Your task to perform on an android device: Go to accessibility settings Image 0: 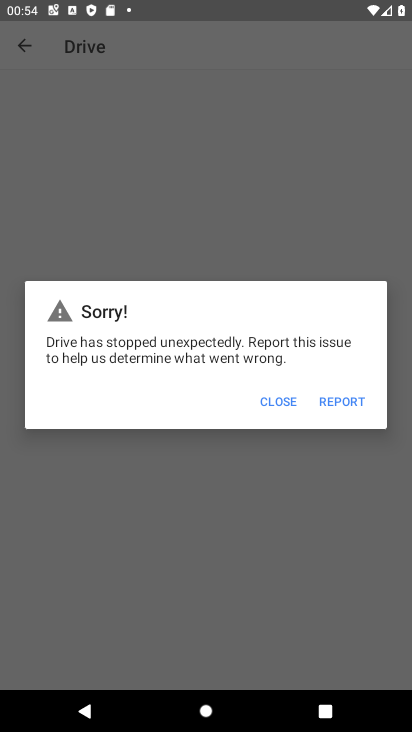
Step 0: press home button
Your task to perform on an android device: Go to accessibility settings Image 1: 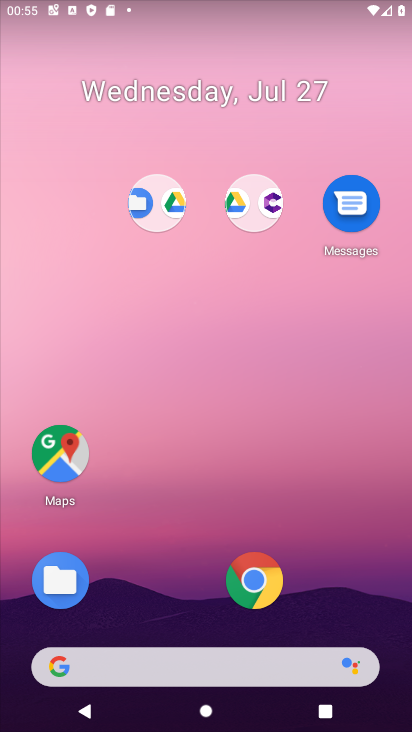
Step 1: drag from (148, 596) to (231, 172)
Your task to perform on an android device: Go to accessibility settings Image 2: 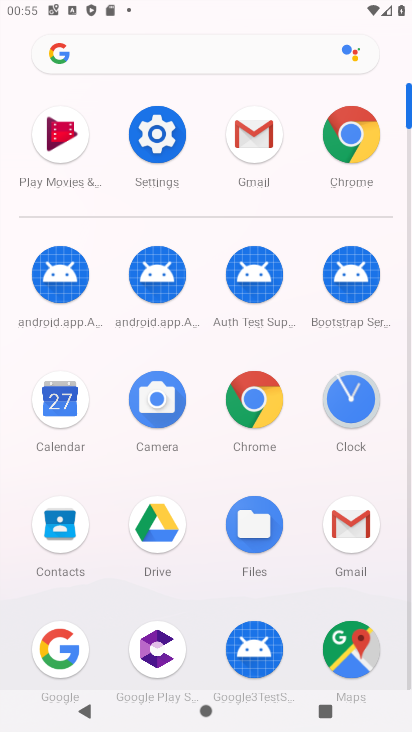
Step 2: click (151, 156)
Your task to perform on an android device: Go to accessibility settings Image 3: 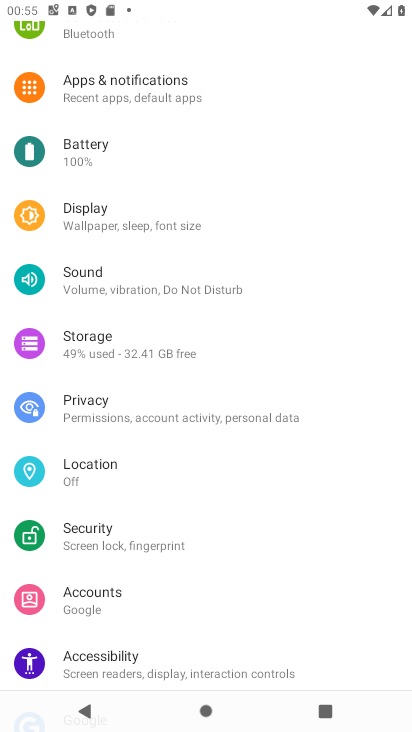
Step 3: click (116, 666)
Your task to perform on an android device: Go to accessibility settings Image 4: 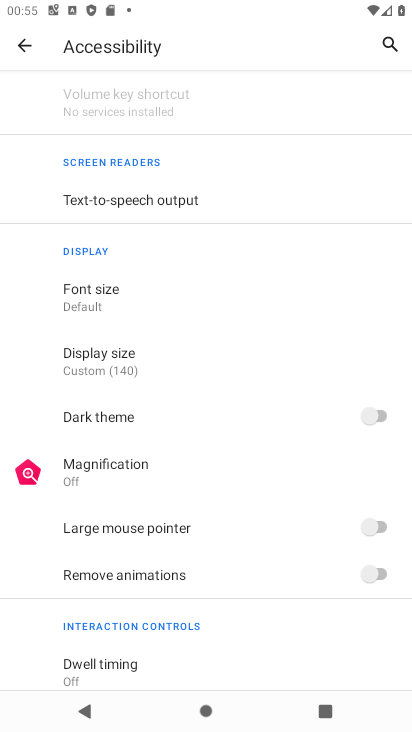
Step 4: task complete